Your task to perform on an android device: toggle sleep mode Image 0: 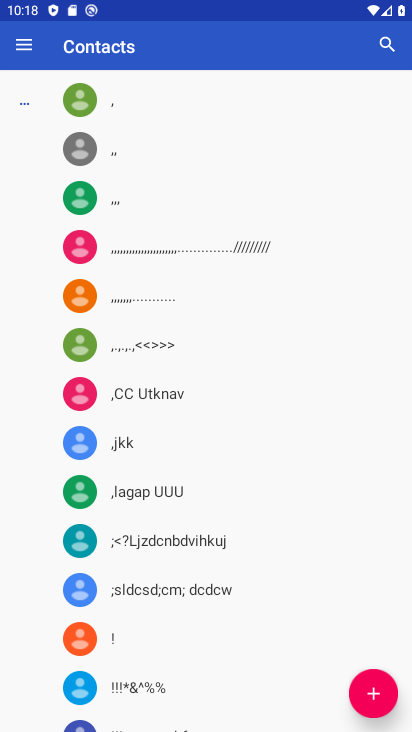
Step 0: press back button
Your task to perform on an android device: toggle sleep mode Image 1: 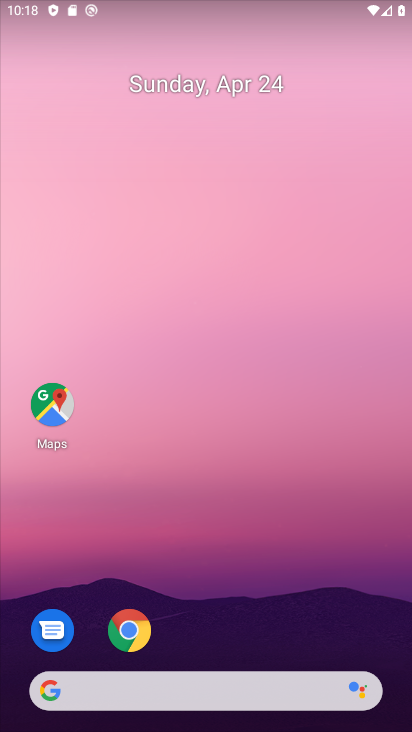
Step 1: drag from (187, 639) to (219, 208)
Your task to perform on an android device: toggle sleep mode Image 2: 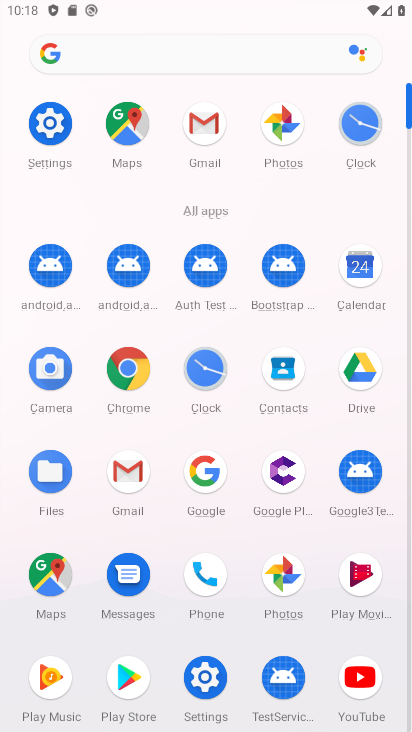
Step 2: click (53, 127)
Your task to perform on an android device: toggle sleep mode Image 3: 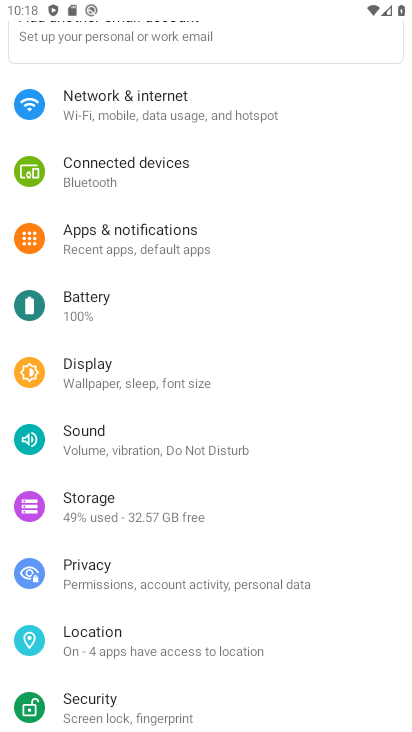
Step 3: click (120, 374)
Your task to perform on an android device: toggle sleep mode Image 4: 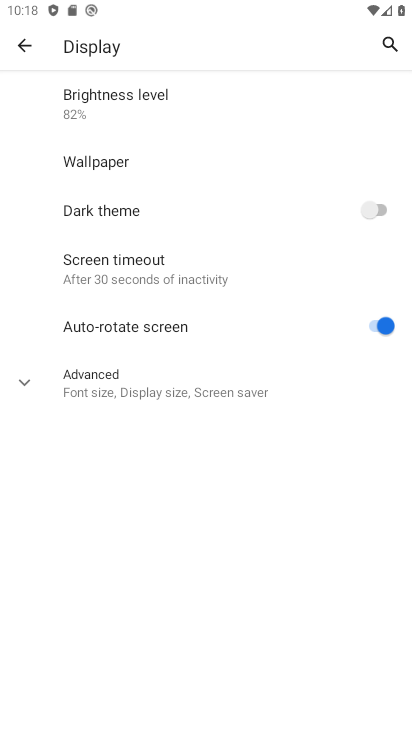
Step 4: click (112, 278)
Your task to perform on an android device: toggle sleep mode Image 5: 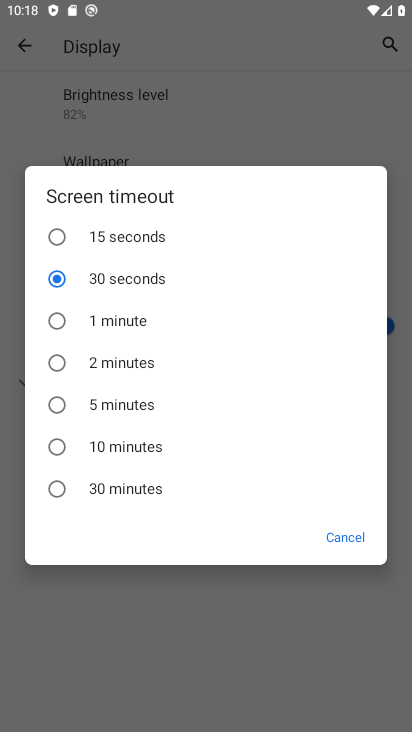
Step 5: click (110, 393)
Your task to perform on an android device: toggle sleep mode Image 6: 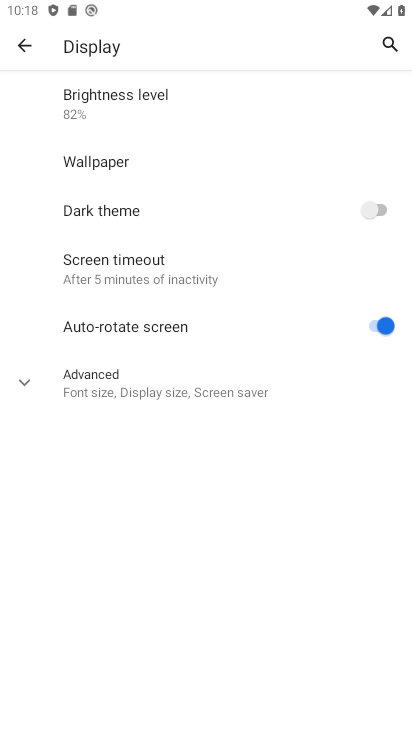
Step 6: task complete